Your task to perform on an android device: set default search engine in the chrome app Image 0: 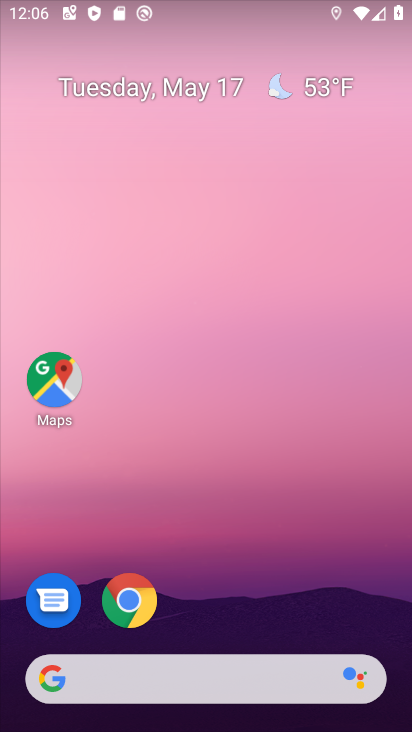
Step 0: drag from (222, 635) to (229, 341)
Your task to perform on an android device: set default search engine in the chrome app Image 1: 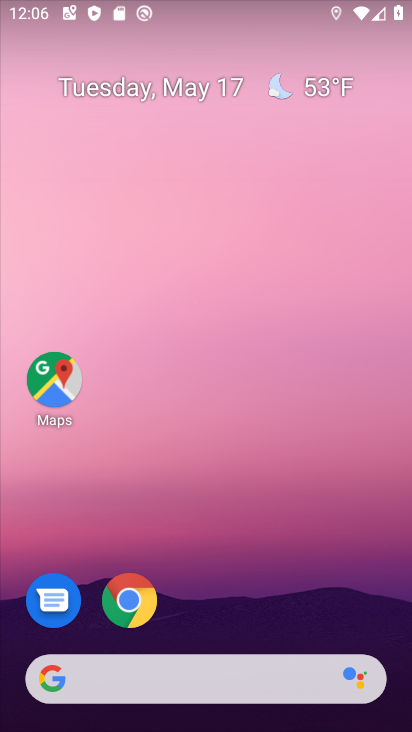
Step 1: click (144, 601)
Your task to perform on an android device: set default search engine in the chrome app Image 2: 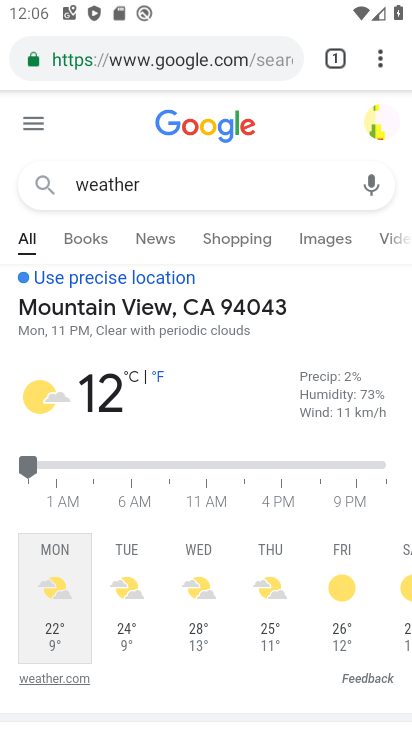
Step 2: click (383, 92)
Your task to perform on an android device: set default search engine in the chrome app Image 3: 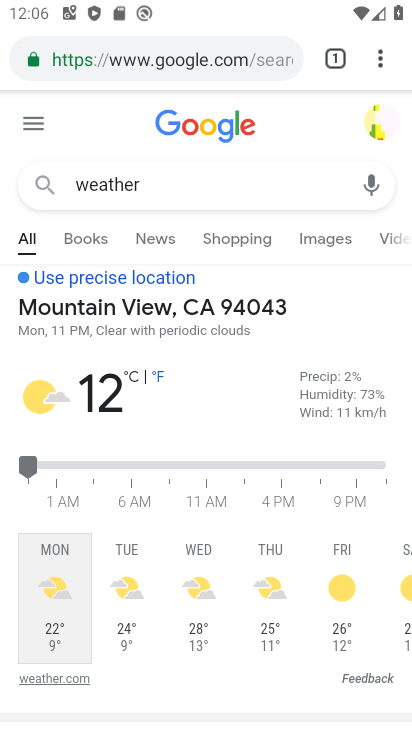
Step 3: click (382, 67)
Your task to perform on an android device: set default search engine in the chrome app Image 4: 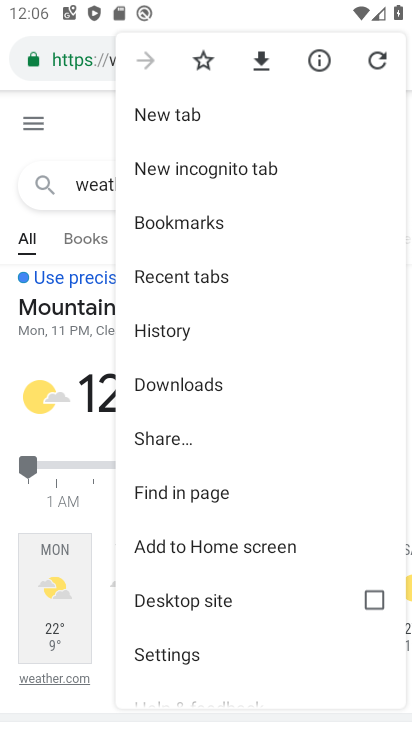
Step 4: click (206, 651)
Your task to perform on an android device: set default search engine in the chrome app Image 5: 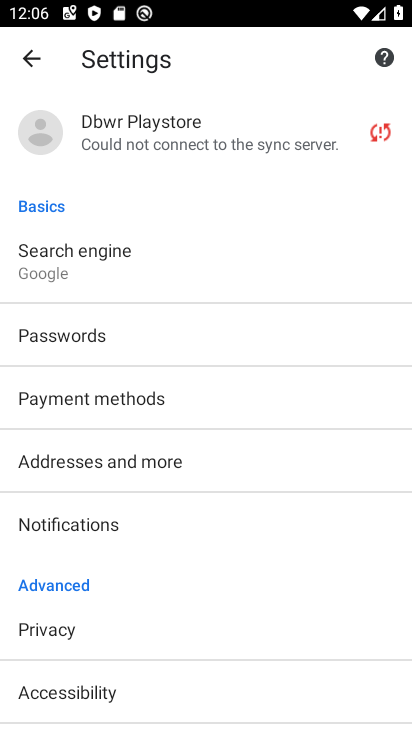
Step 5: click (168, 277)
Your task to perform on an android device: set default search engine in the chrome app Image 6: 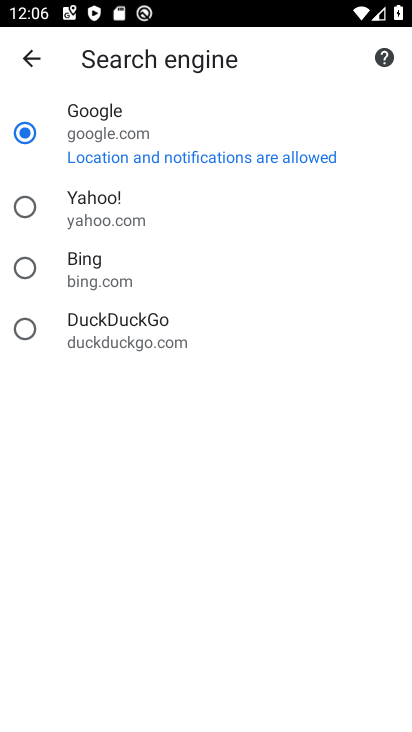
Step 6: click (156, 218)
Your task to perform on an android device: set default search engine in the chrome app Image 7: 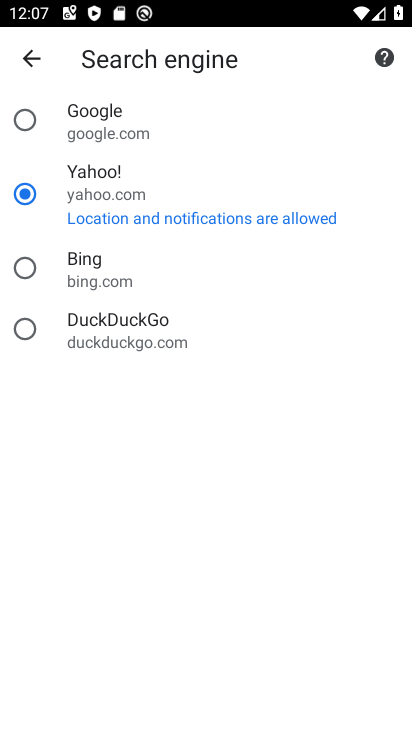
Step 7: task complete